Your task to perform on an android device: turn on notifications settings in the gmail app Image 0: 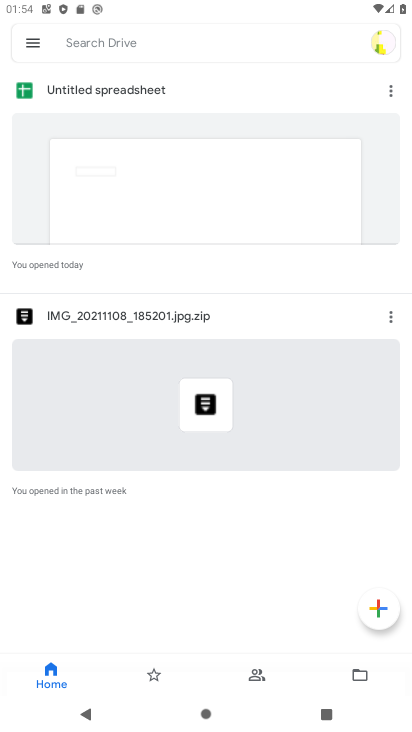
Step 0: press home button
Your task to perform on an android device: turn on notifications settings in the gmail app Image 1: 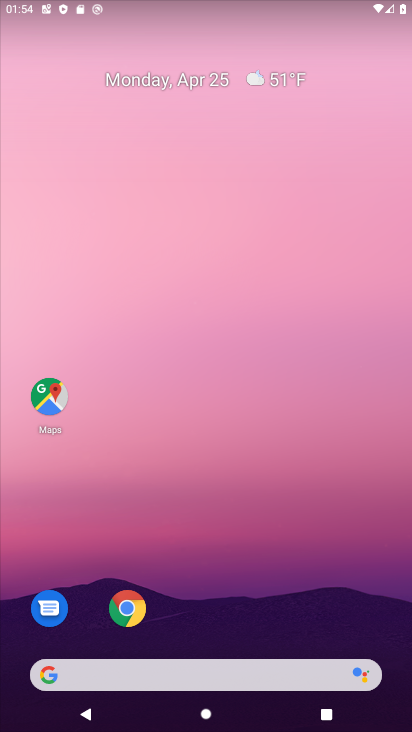
Step 1: drag from (213, 638) to (319, 51)
Your task to perform on an android device: turn on notifications settings in the gmail app Image 2: 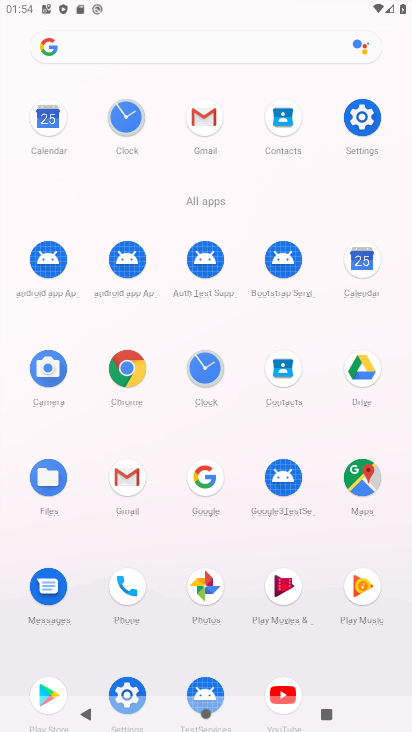
Step 2: click (207, 111)
Your task to perform on an android device: turn on notifications settings in the gmail app Image 3: 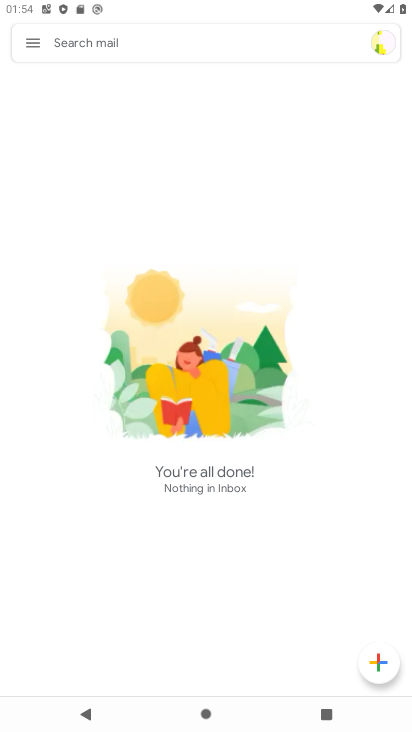
Step 3: click (28, 45)
Your task to perform on an android device: turn on notifications settings in the gmail app Image 4: 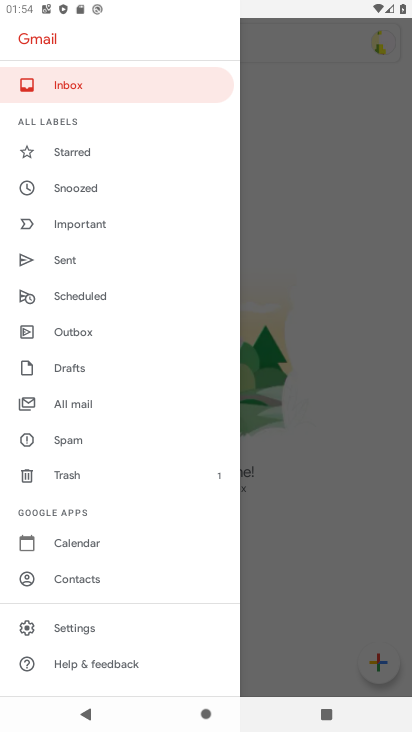
Step 4: click (87, 628)
Your task to perform on an android device: turn on notifications settings in the gmail app Image 5: 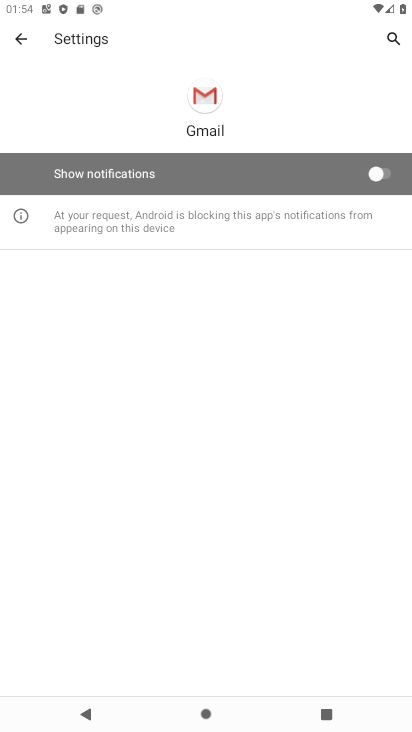
Step 5: click (380, 171)
Your task to perform on an android device: turn on notifications settings in the gmail app Image 6: 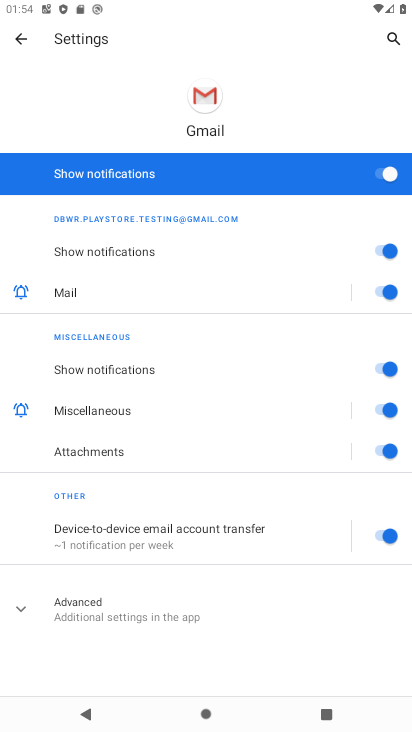
Step 6: task complete